Your task to perform on an android device: Go to Google maps Image 0: 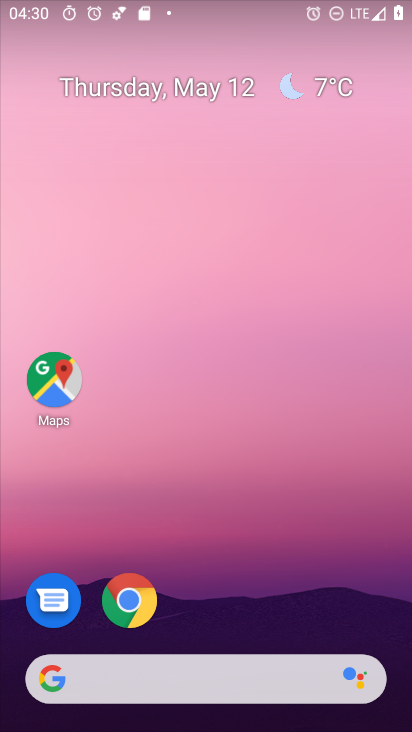
Step 0: drag from (208, 726) to (211, 110)
Your task to perform on an android device: Go to Google maps Image 1: 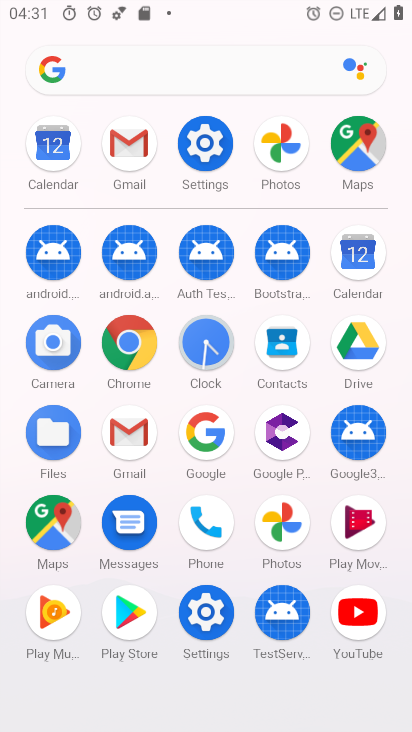
Step 1: click (53, 517)
Your task to perform on an android device: Go to Google maps Image 2: 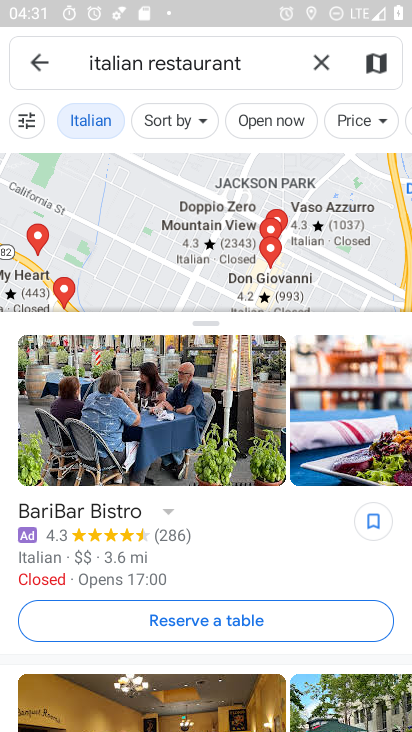
Step 2: task complete